Your task to perform on an android device: Show me popular videos on Youtube Image 0: 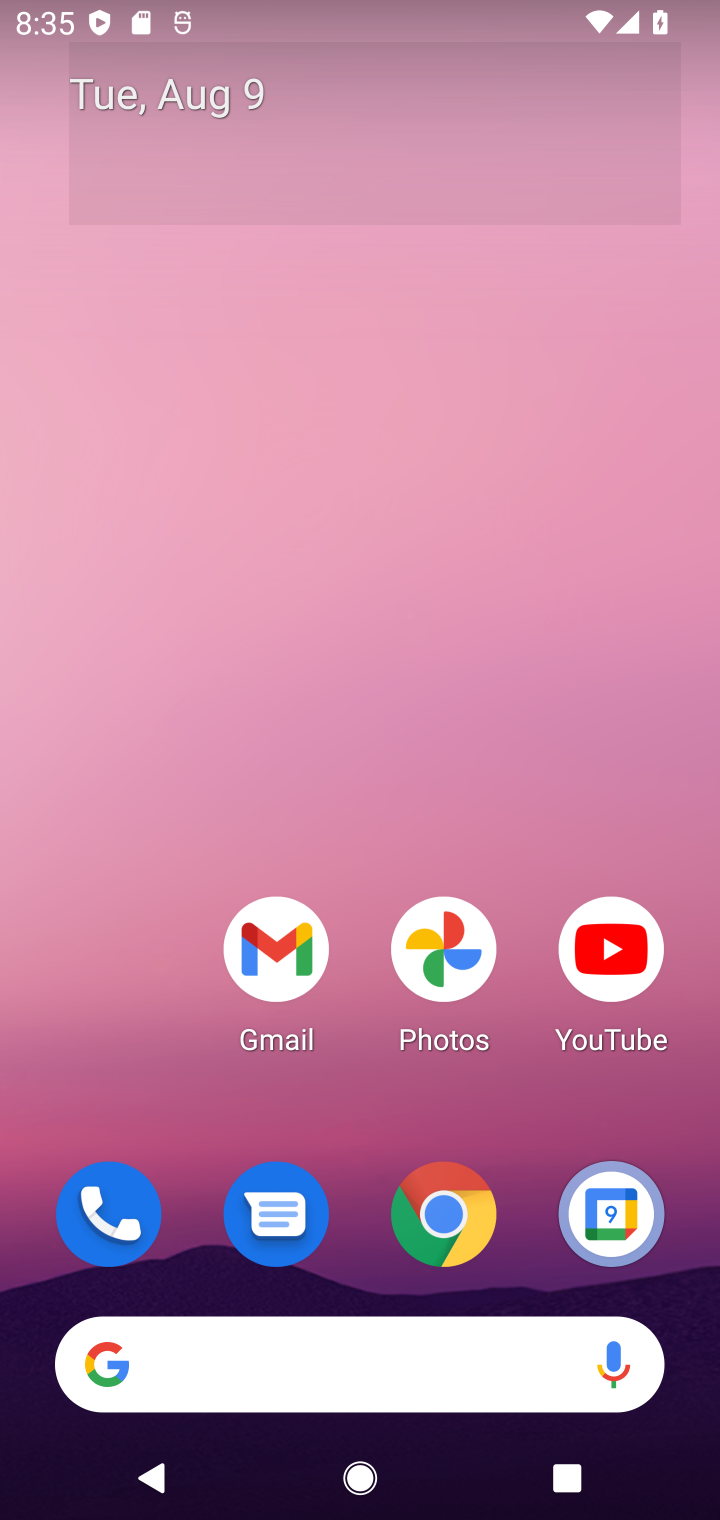
Step 0: click (618, 952)
Your task to perform on an android device: Show me popular videos on Youtube Image 1: 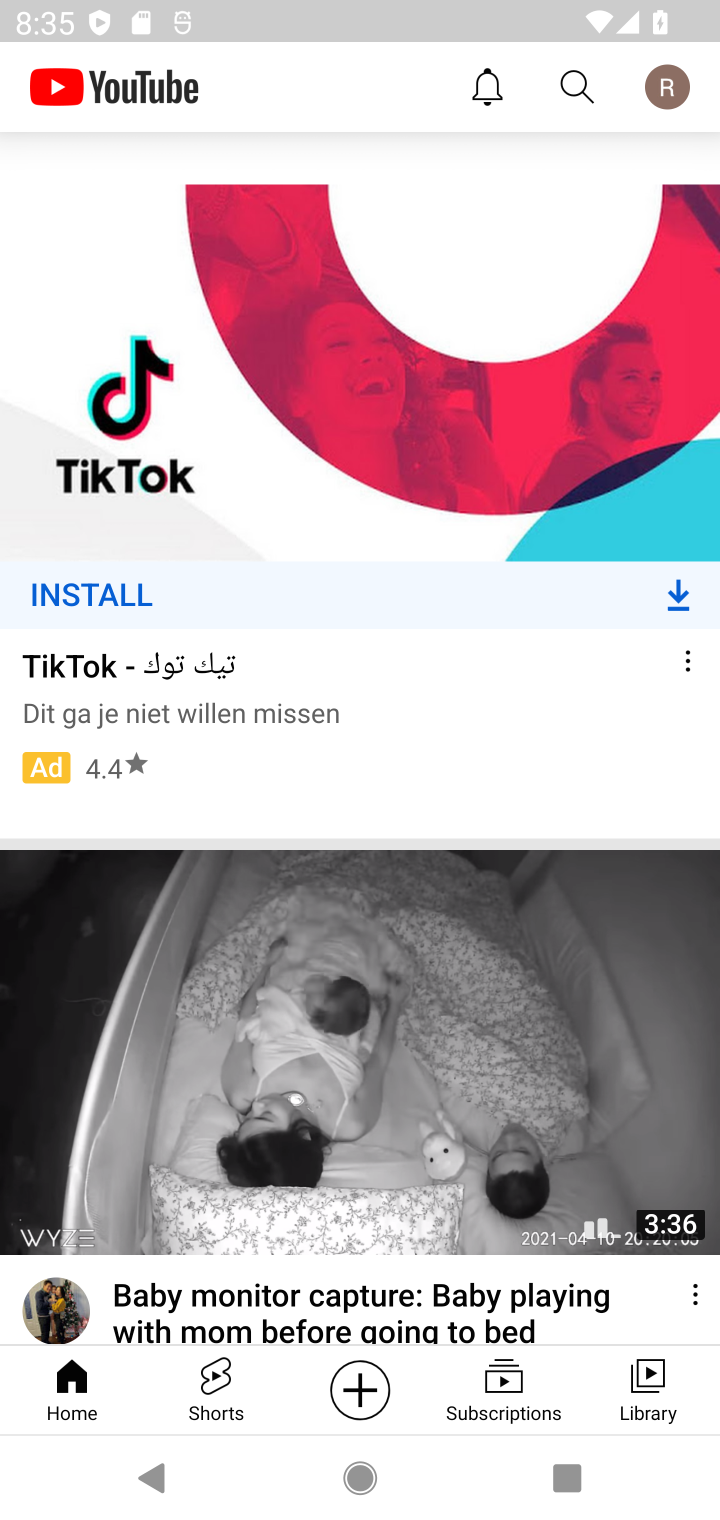
Step 1: click (576, 78)
Your task to perform on an android device: Show me popular videos on Youtube Image 2: 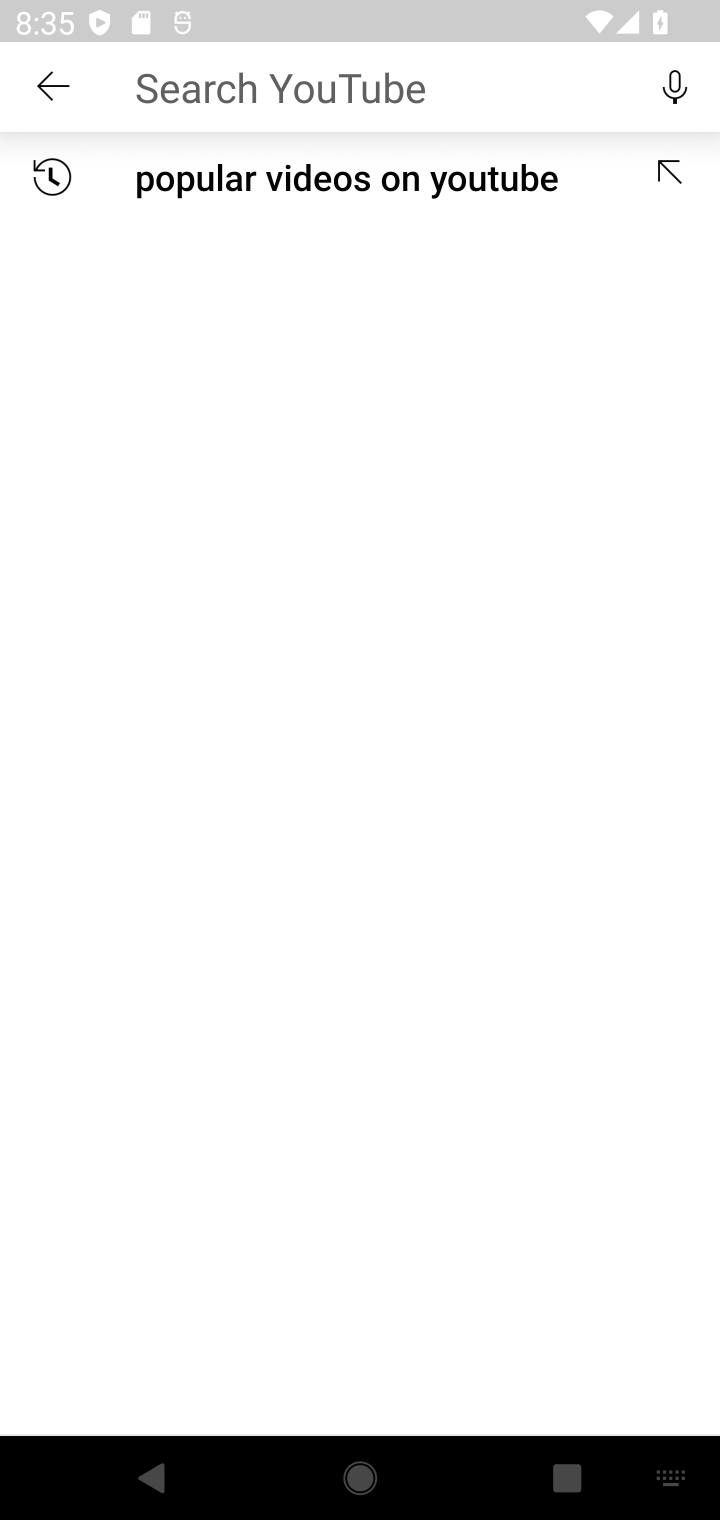
Step 2: click (412, 187)
Your task to perform on an android device: Show me popular videos on Youtube Image 3: 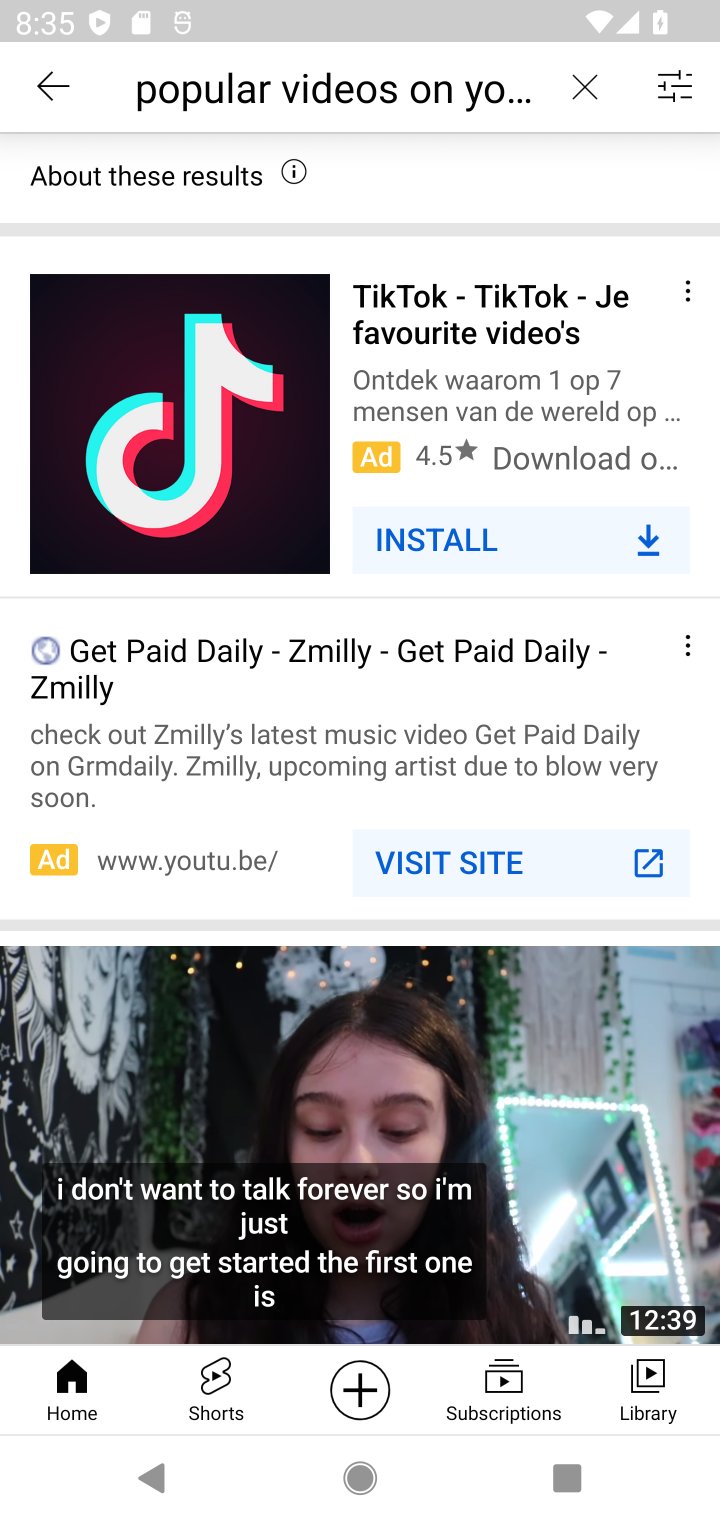
Step 3: task complete